Your task to perform on an android device: Go to Google maps Image 0: 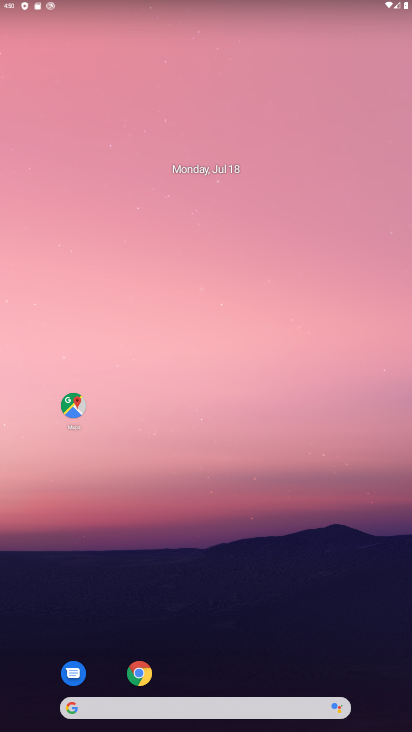
Step 0: drag from (135, 560) to (33, 85)
Your task to perform on an android device: Go to Google maps Image 1: 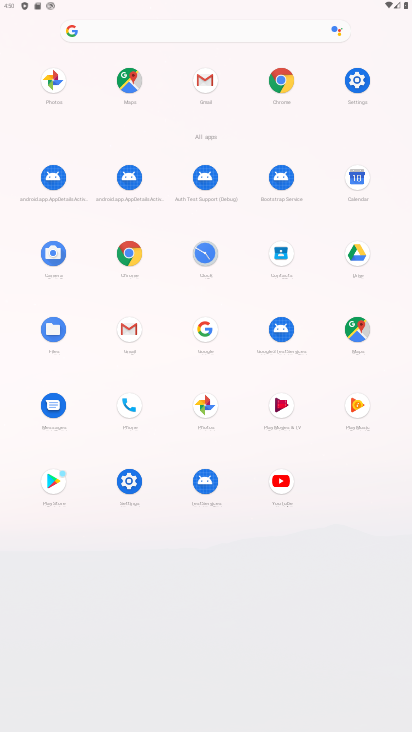
Step 1: click (357, 337)
Your task to perform on an android device: Go to Google maps Image 2: 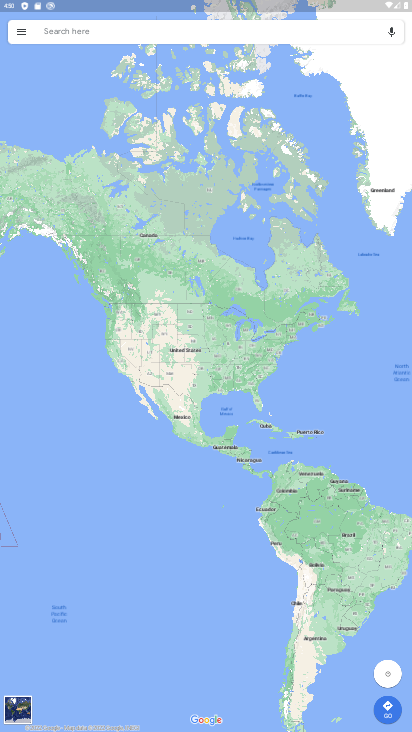
Step 2: task complete